Your task to perform on an android device: What's the weather? Image 0: 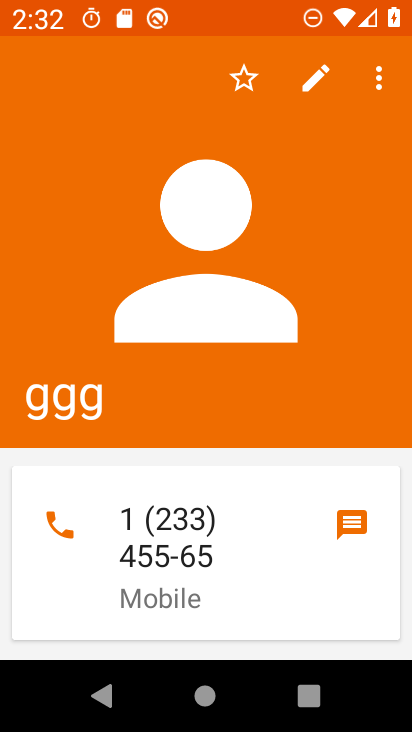
Step 0: press home button
Your task to perform on an android device: What's the weather? Image 1: 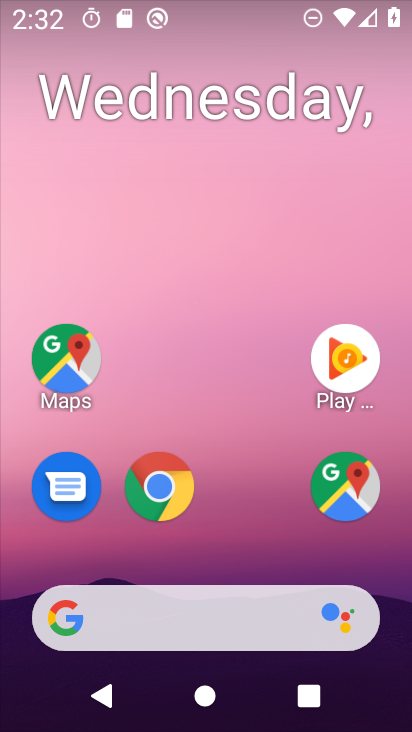
Step 1: click (196, 624)
Your task to perform on an android device: What's the weather? Image 2: 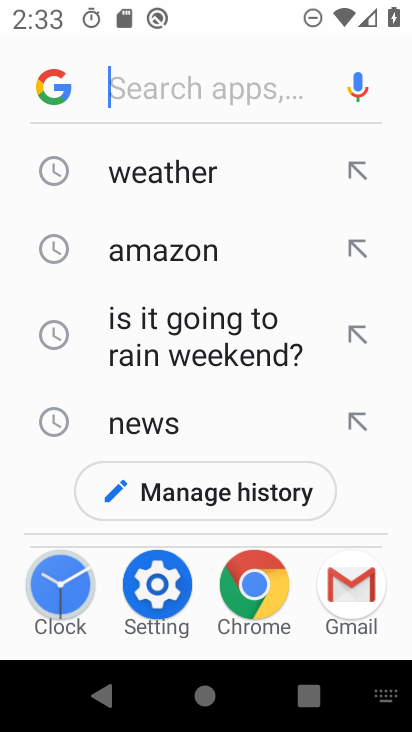
Step 2: click (202, 178)
Your task to perform on an android device: What's the weather? Image 3: 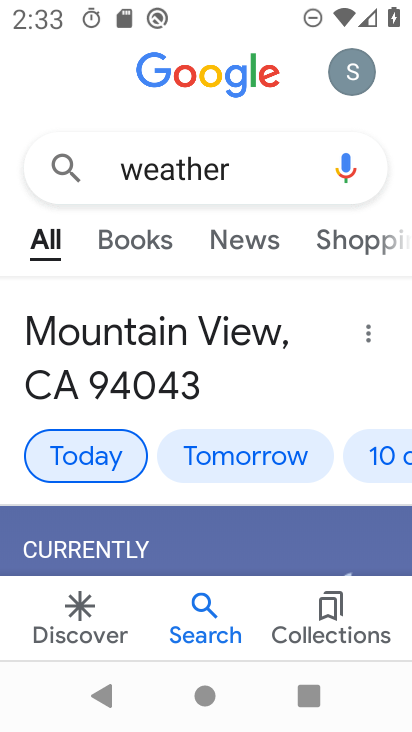
Step 3: task complete